Your task to perform on an android device: Show me popular games on the Play Store Image 0: 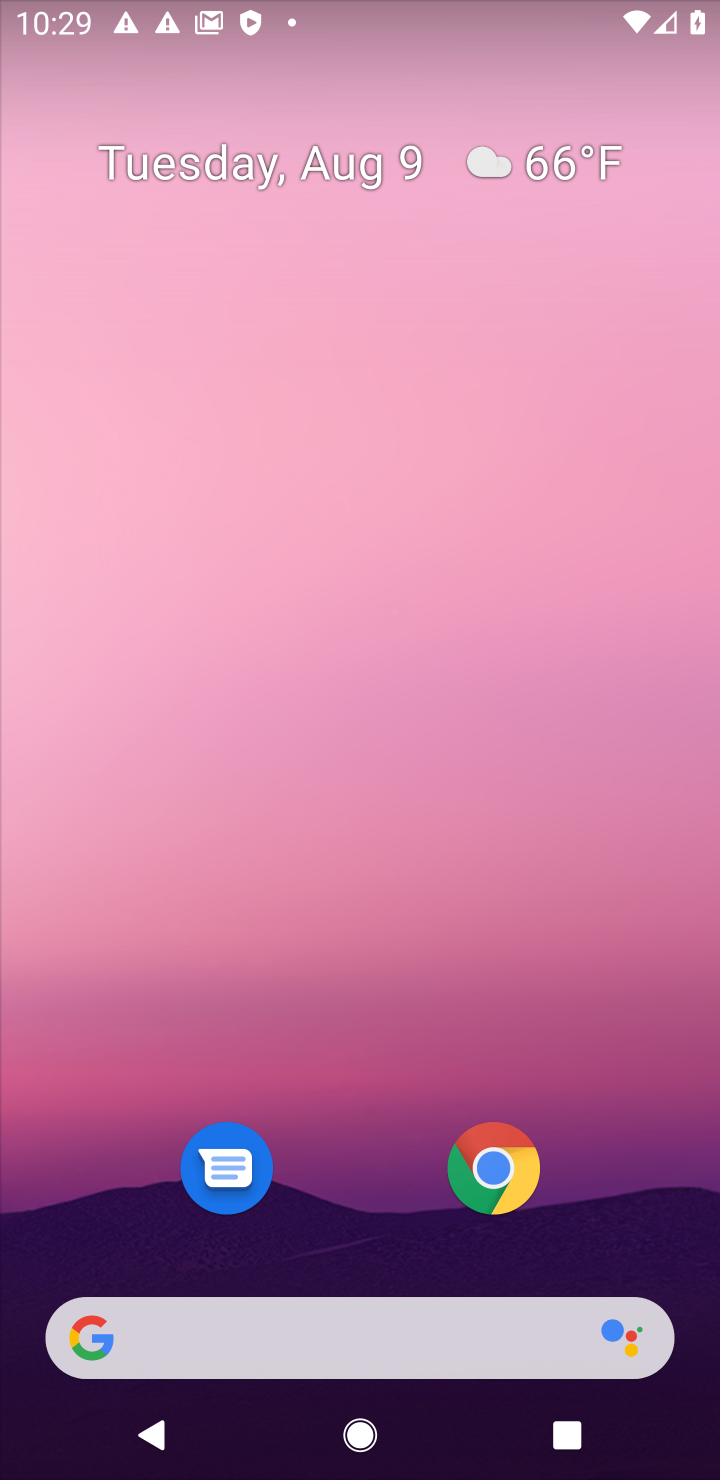
Step 0: drag from (374, 1238) to (566, 4)
Your task to perform on an android device: Show me popular games on the Play Store Image 1: 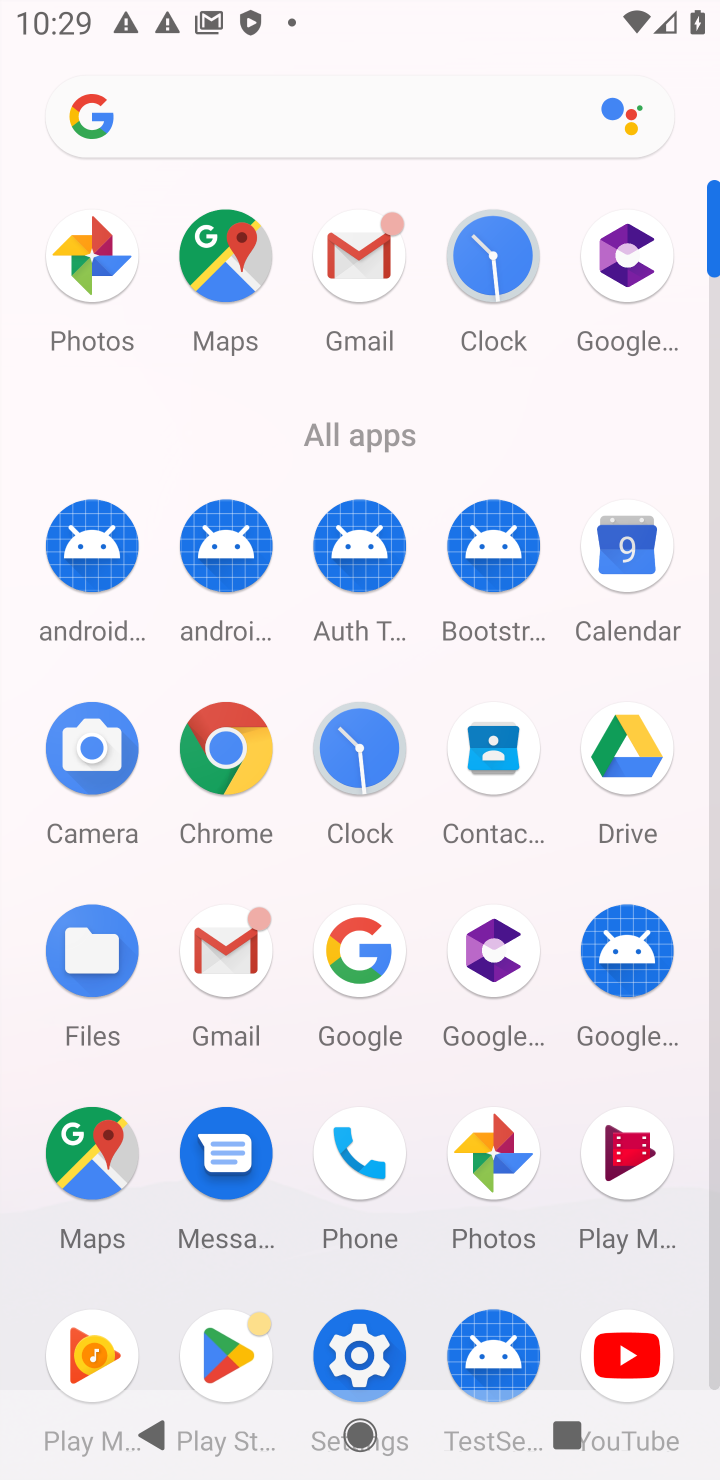
Step 1: click (241, 1346)
Your task to perform on an android device: Show me popular games on the Play Store Image 2: 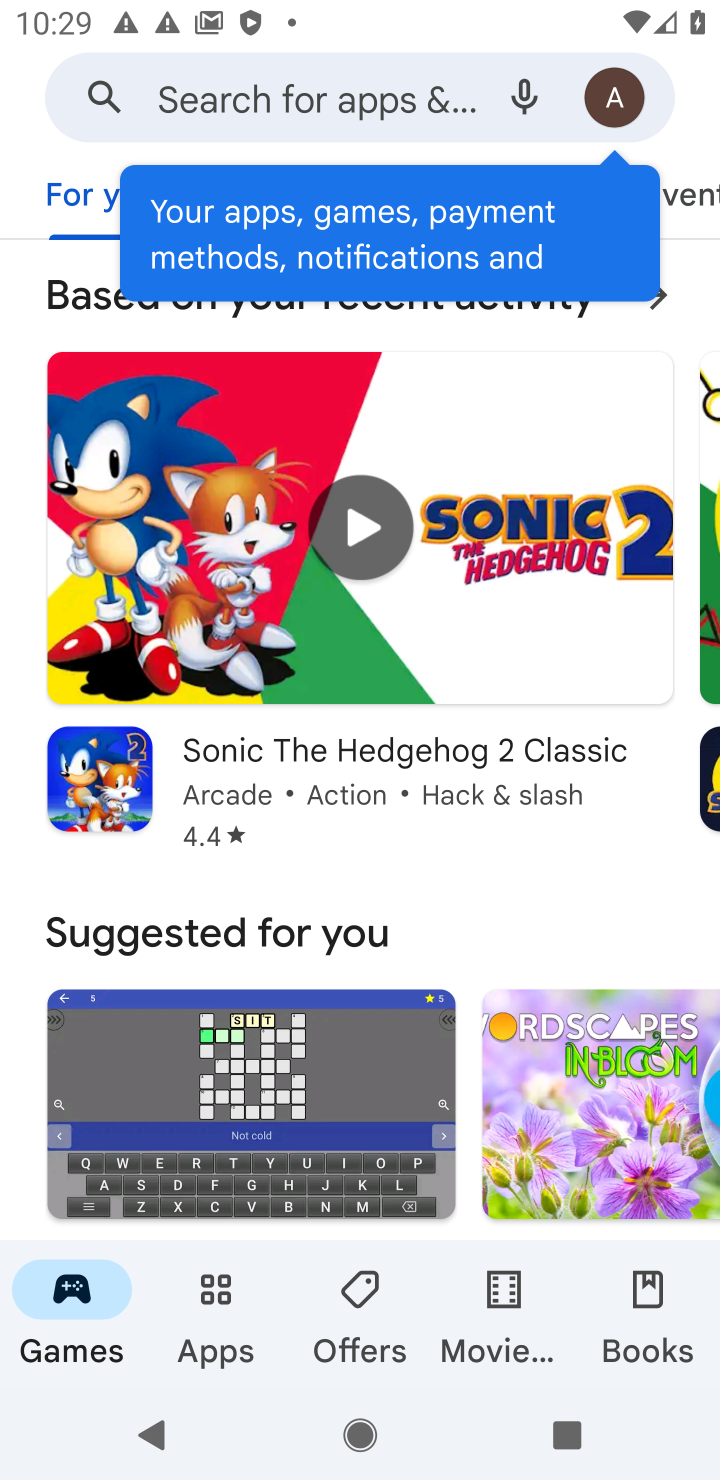
Step 2: click (407, 96)
Your task to perform on an android device: Show me popular games on the Play Store Image 3: 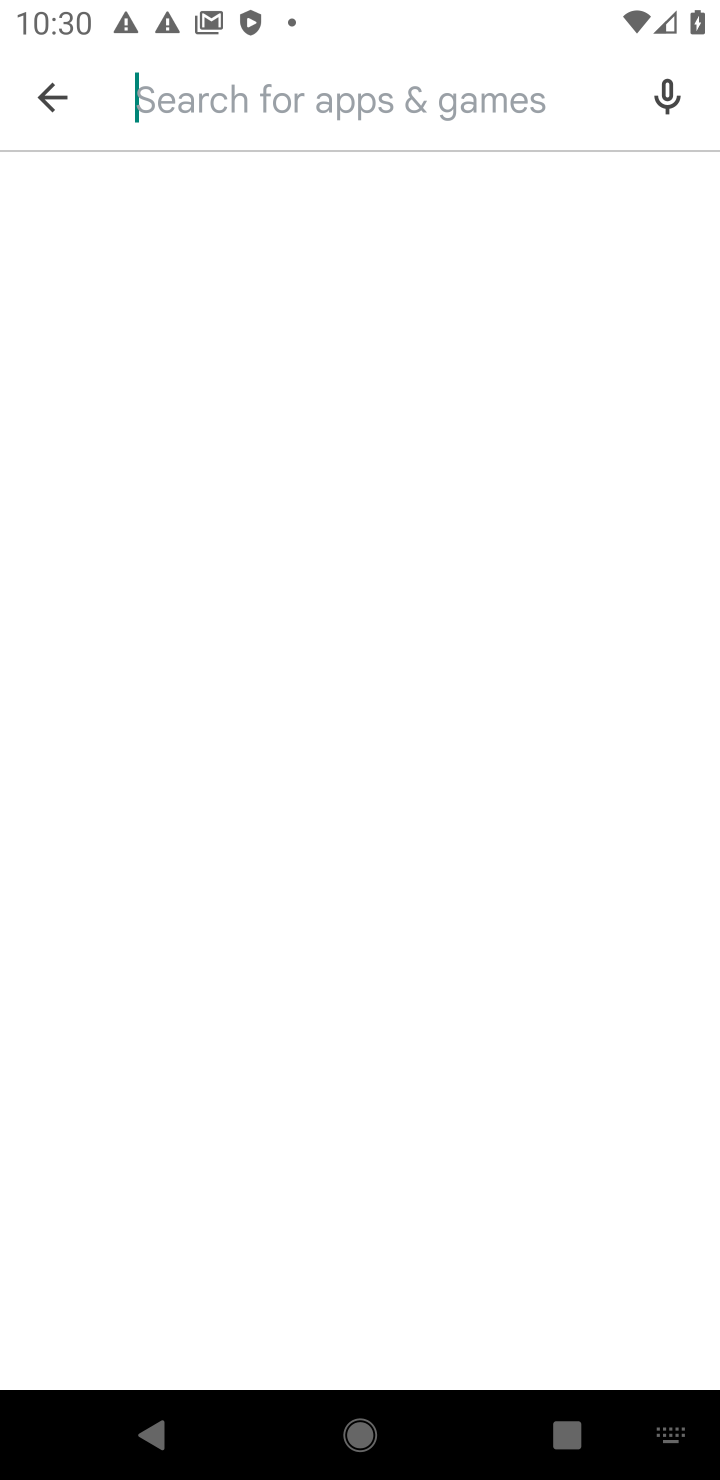
Step 3: type " popular games "
Your task to perform on an android device: Show me popular games on the Play Store Image 4: 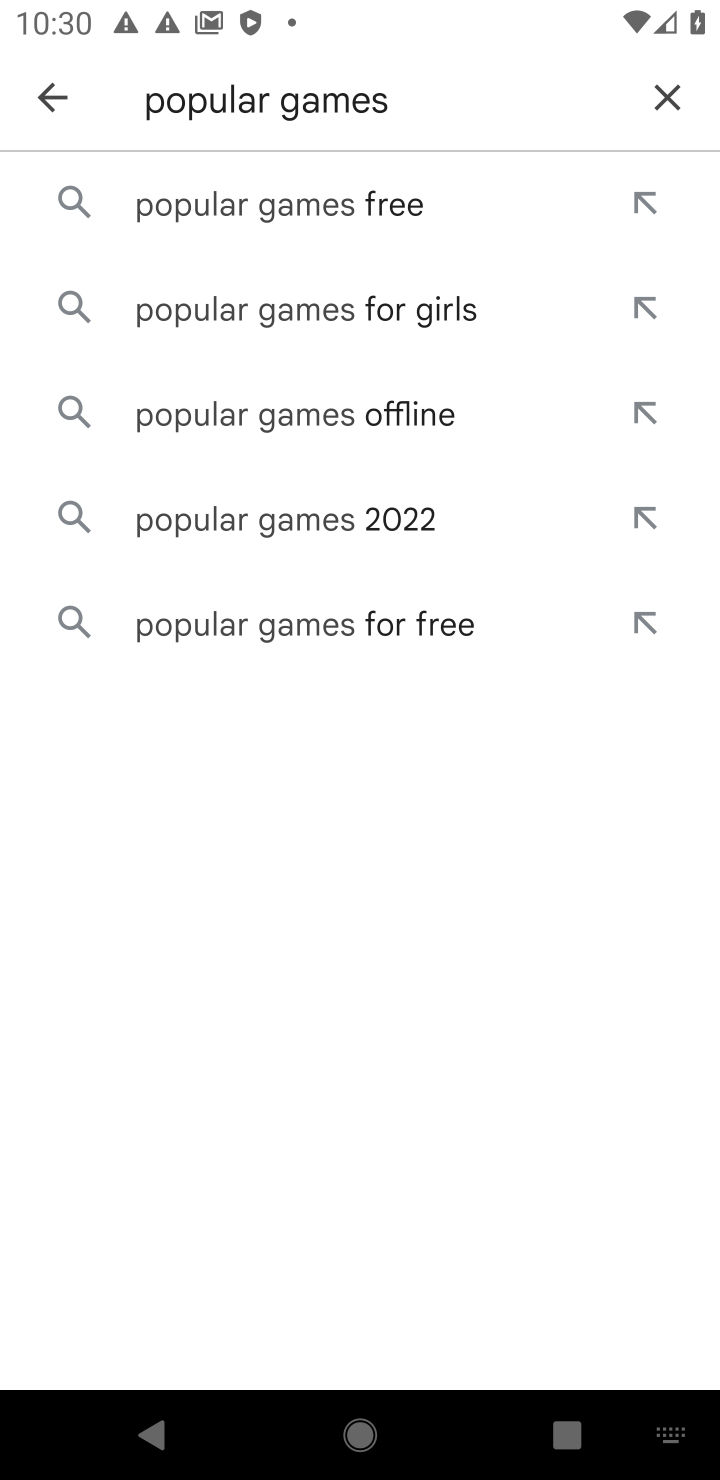
Step 4: click (265, 192)
Your task to perform on an android device: Show me popular games on the Play Store Image 5: 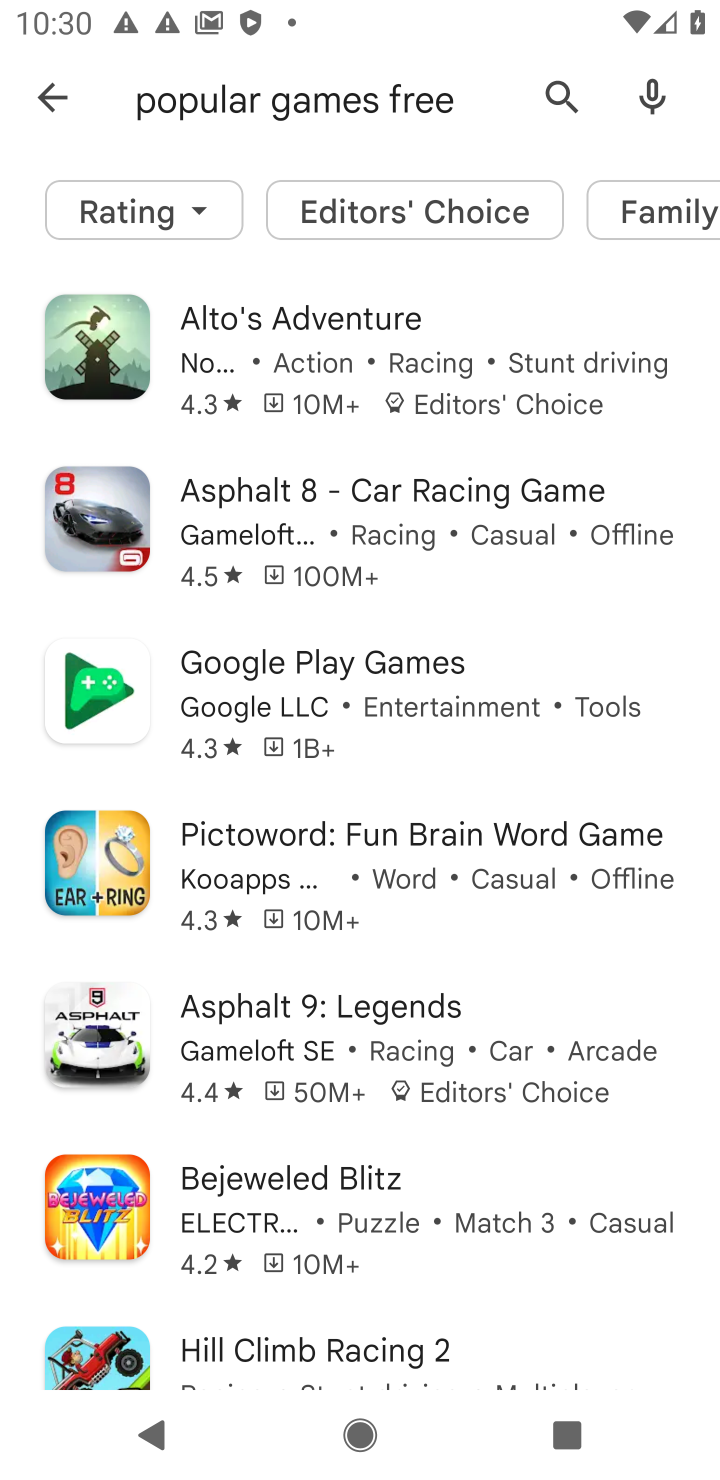
Step 5: task complete